Your task to perform on an android device: turn off improve location accuracy Image 0: 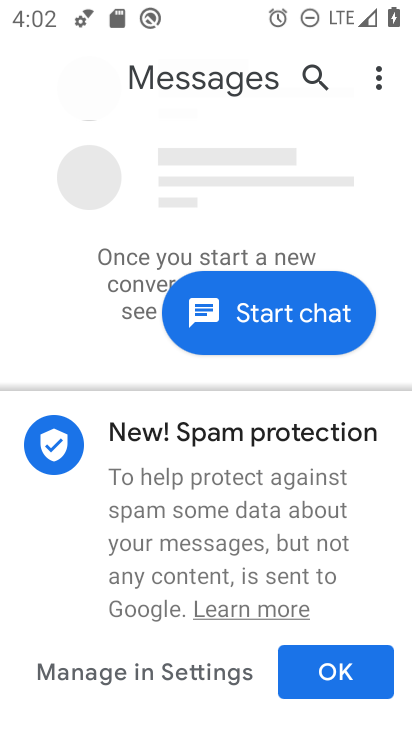
Step 0: press back button
Your task to perform on an android device: turn off improve location accuracy Image 1: 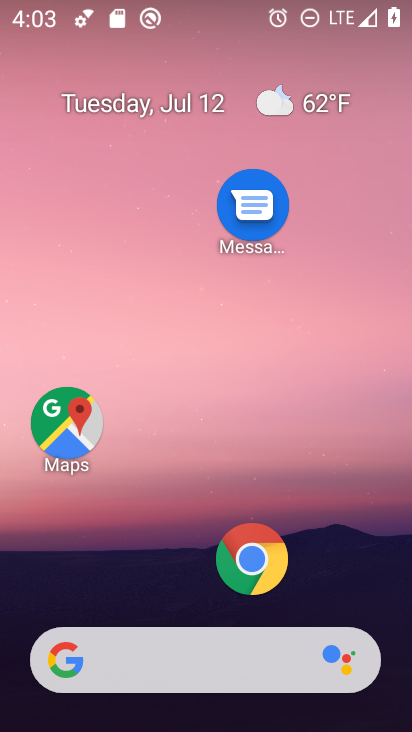
Step 1: drag from (152, 457) to (180, 31)
Your task to perform on an android device: turn off improve location accuracy Image 2: 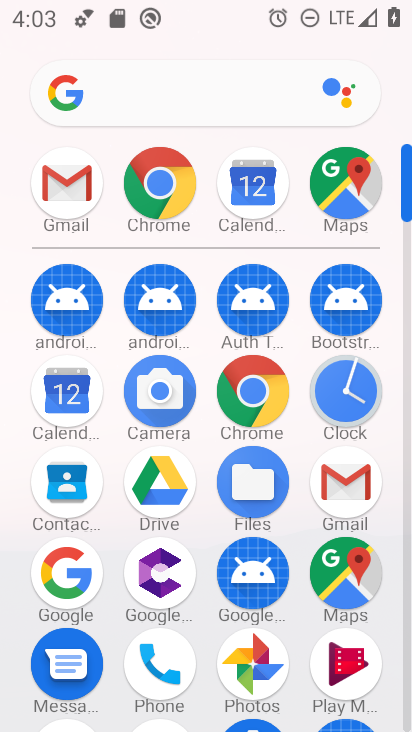
Step 2: drag from (135, 659) to (276, 41)
Your task to perform on an android device: turn off improve location accuracy Image 3: 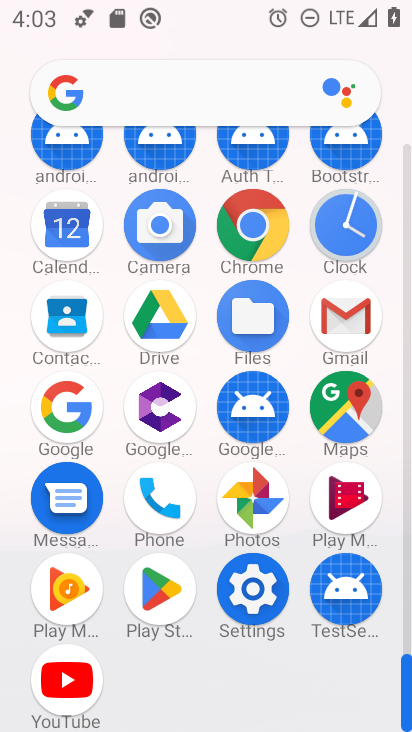
Step 3: click (246, 602)
Your task to perform on an android device: turn off improve location accuracy Image 4: 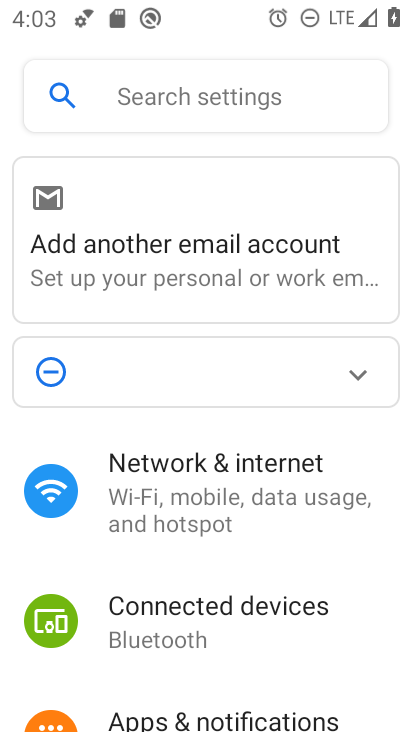
Step 4: drag from (175, 674) to (321, 96)
Your task to perform on an android device: turn off improve location accuracy Image 5: 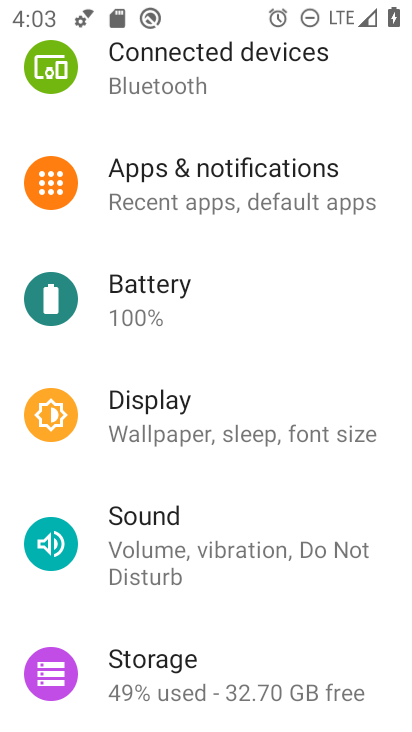
Step 5: drag from (196, 616) to (300, 106)
Your task to perform on an android device: turn off improve location accuracy Image 6: 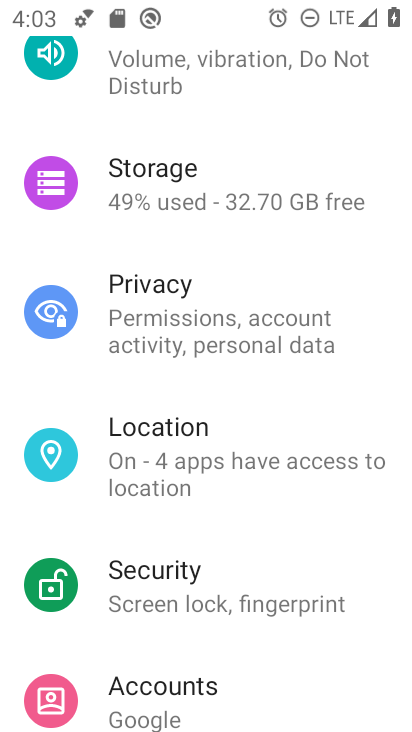
Step 6: click (156, 449)
Your task to perform on an android device: turn off improve location accuracy Image 7: 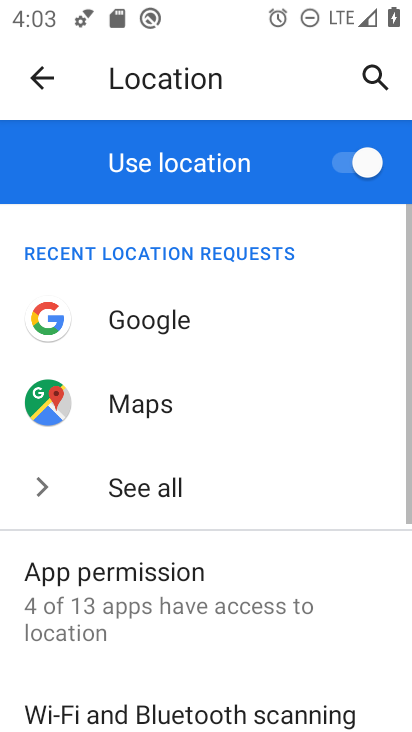
Step 7: drag from (158, 619) to (251, 92)
Your task to perform on an android device: turn off improve location accuracy Image 8: 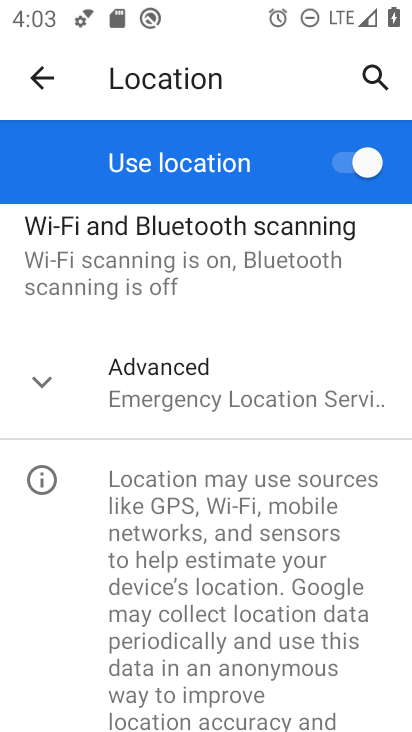
Step 8: click (177, 391)
Your task to perform on an android device: turn off improve location accuracy Image 9: 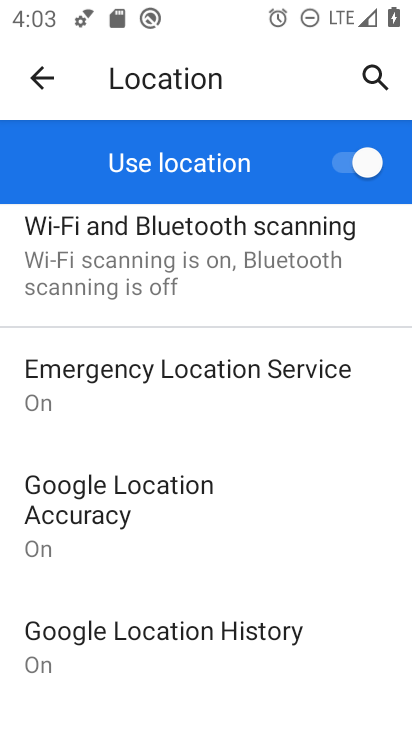
Step 9: click (129, 508)
Your task to perform on an android device: turn off improve location accuracy Image 10: 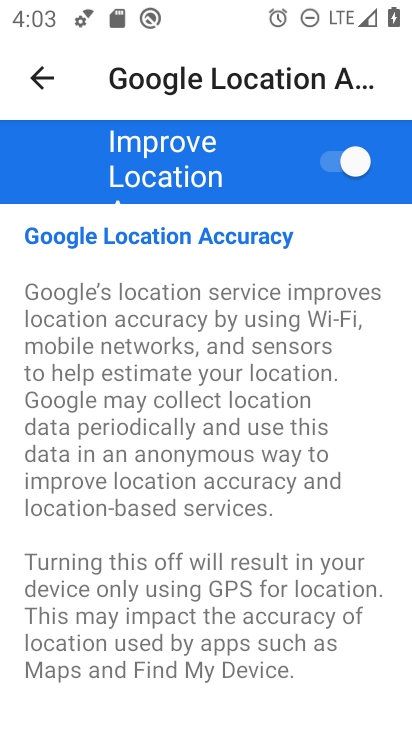
Step 10: click (350, 162)
Your task to perform on an android device: turn off improve location accuracy Image 11: 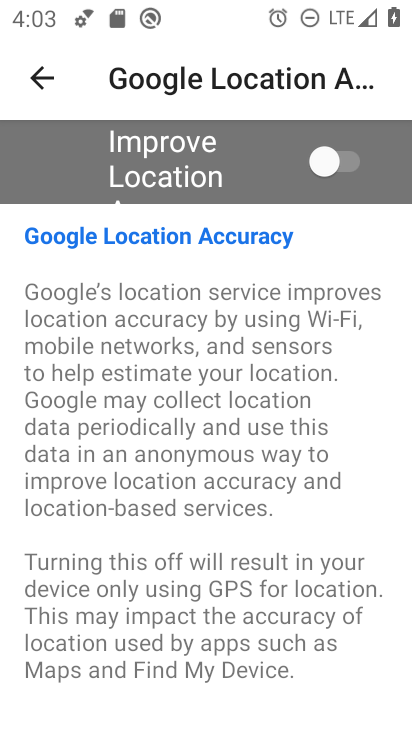
Step 11: task complete